Your task to perform on an android device: Show me popular games on the Play Store Image 0: 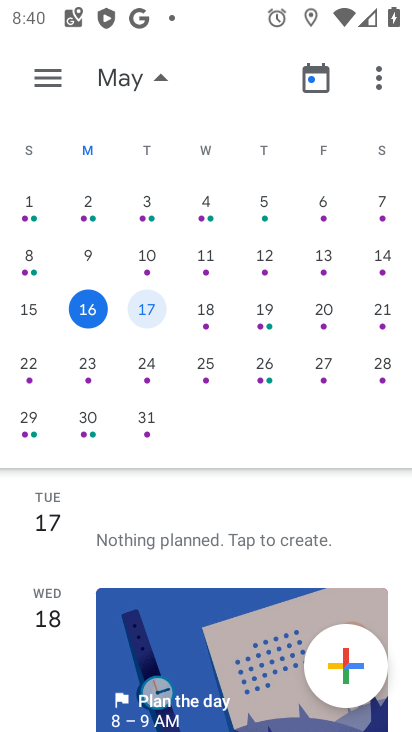
Step 0: press home button
Your task to perform on an android device: Show me popular games on the Play Store Image 1: 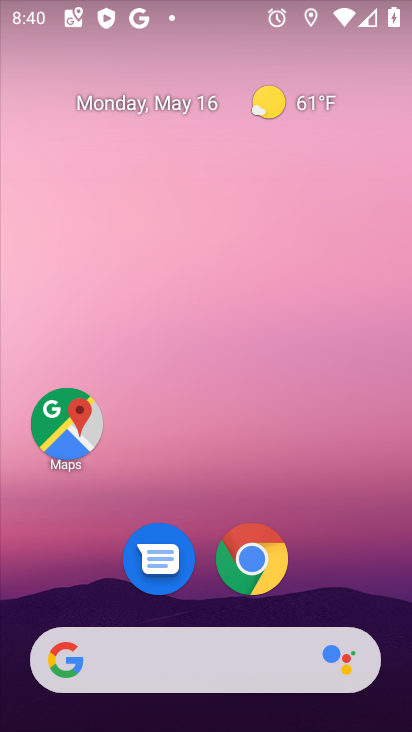
Step 1: drag from (376, 574) to (341, 193)
Your task to perform on an android device: Show me popular games on the Play Store Image 2: 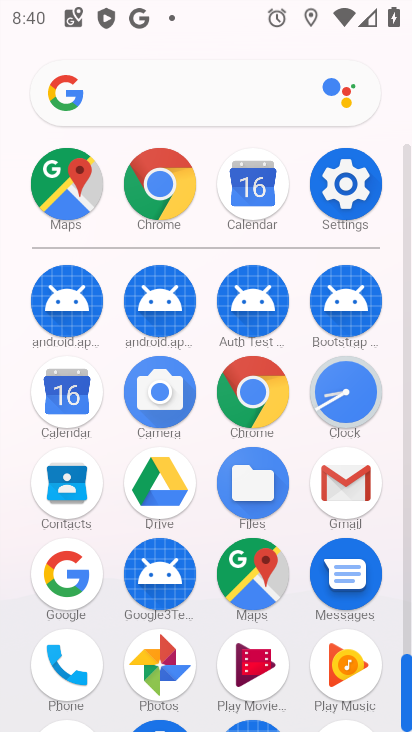
Step 2: drag from (299, 634) to (308, 305)
Your task to perform on an android device: Show me popular games on the Play Store Image 3: 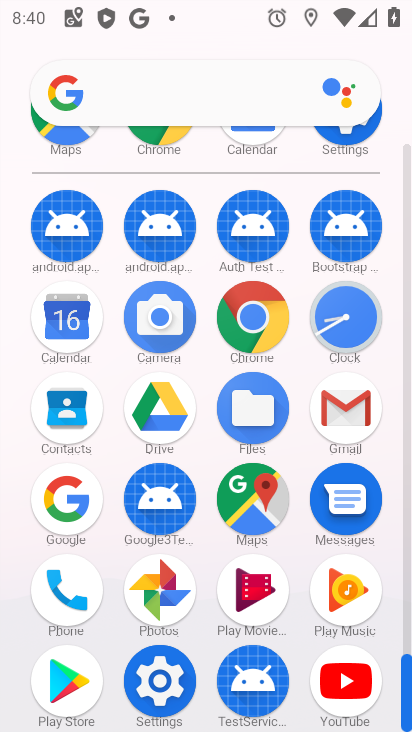
Step 3: click (60, 681)
Your task to perform on an android device: Show me popular games on the Play Store Image 4: 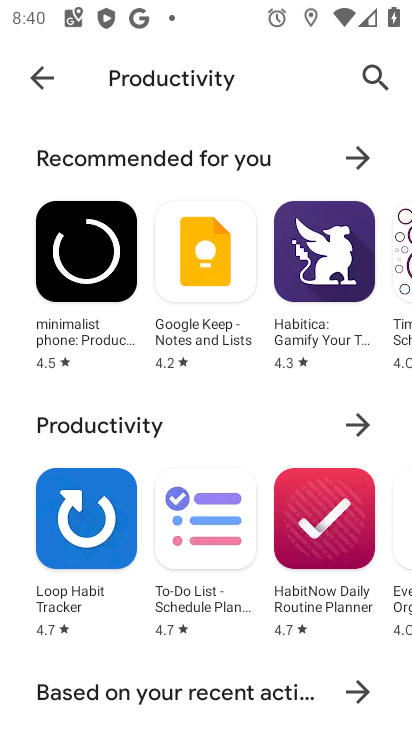
Step 4: click (36, 85)
Your task to perform on an android device: Show me popular games on the Play Store Image 5: 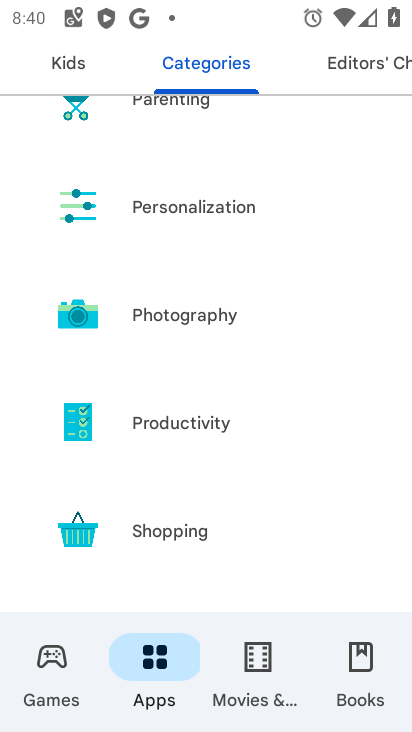
Step 5: click (73, 67)
Your task to perform on an android device: Show me popular games on the Play Store Image 6: 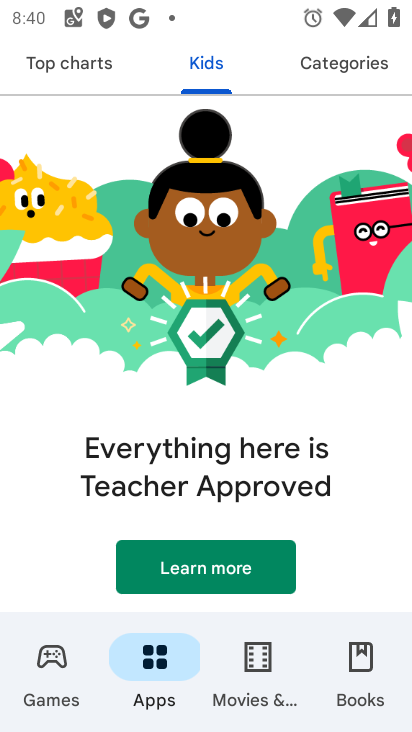
Step 6: drag from (365, 66) to (124, 71)
Your task to perform on an android device: Show me popular games on the Play Store Image 7: 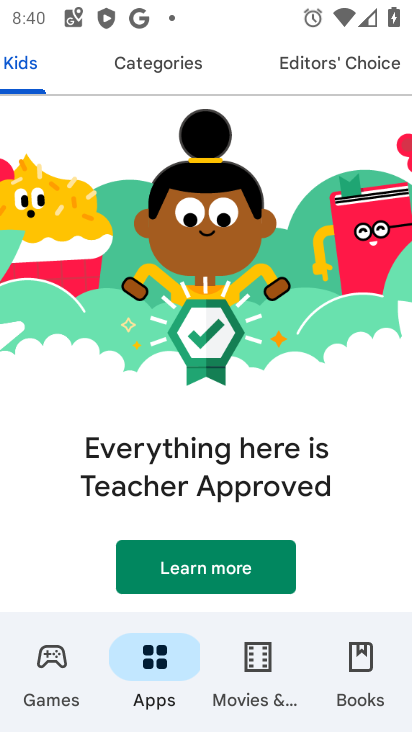
Step 7: click (369, 65)
Your task to perform on an android device: Show me popular games on the Play Store Image 8: 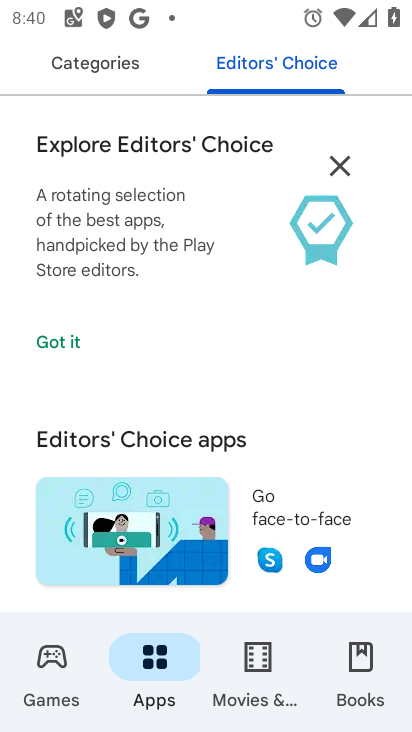
Step 8: click (51, 678)
Your task to perform on an android device: Show me popular games on the Play Store Image 9: 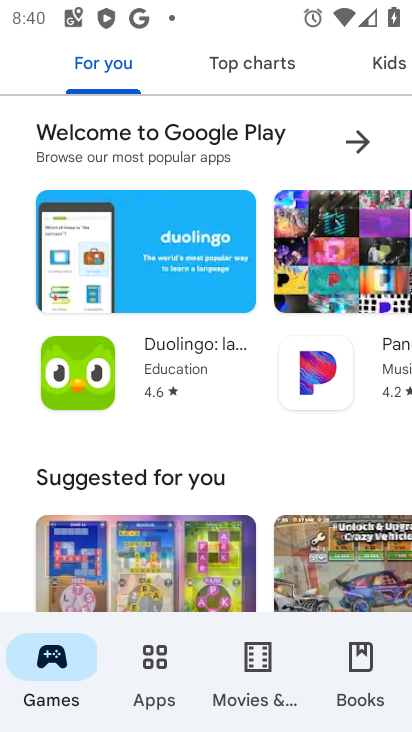
Step 9: drag from (220, 547) to (212, 153)
Your task to perform on an android device: Show me popular games on the Play Store Image 10: 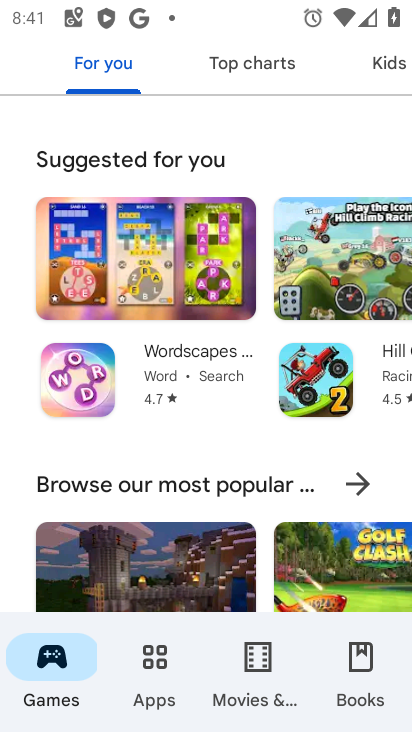
Step 10: drag from (372, 57) to (139, 69)
Your task to perform on an android device: Show me popular games on the Play Store Image 11: 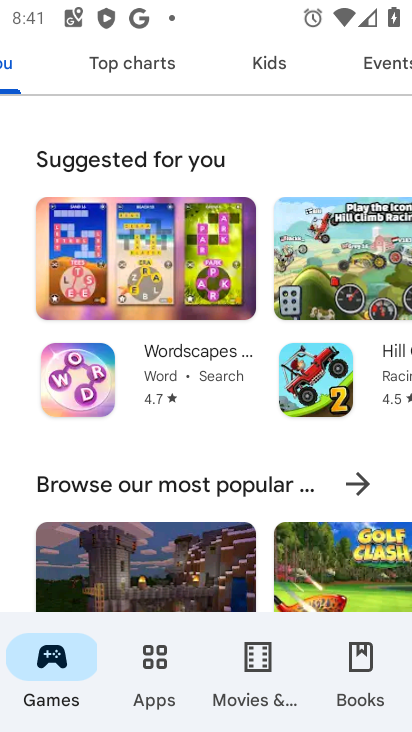
Step 11: click (133, 69)
Your task to perform on an android device: Show me popular games on the Play Store Image 12: 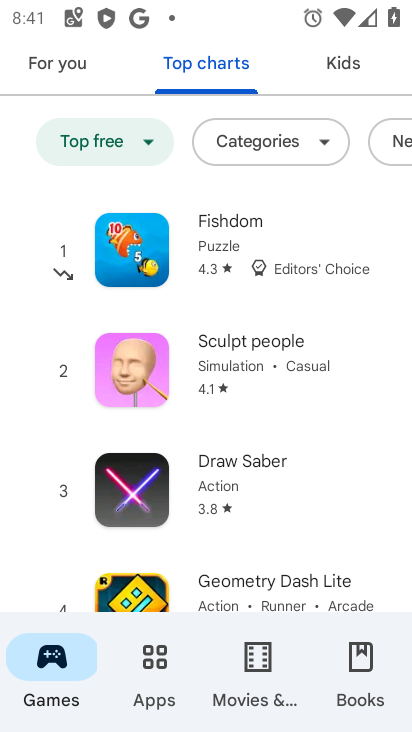
Step 12: task complete